Your task to perform on an android device: Is it going to rain today? Image 0: 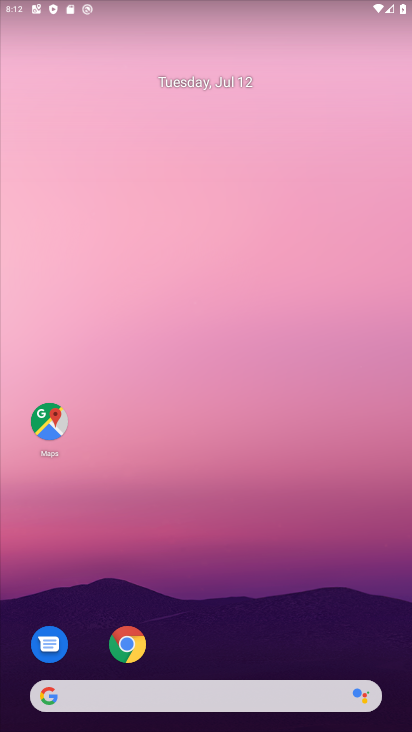
Step 0: drag from (191, 553) to (266, 23)
Your task to perform on an android device: Is it going to rain today? Image 1: 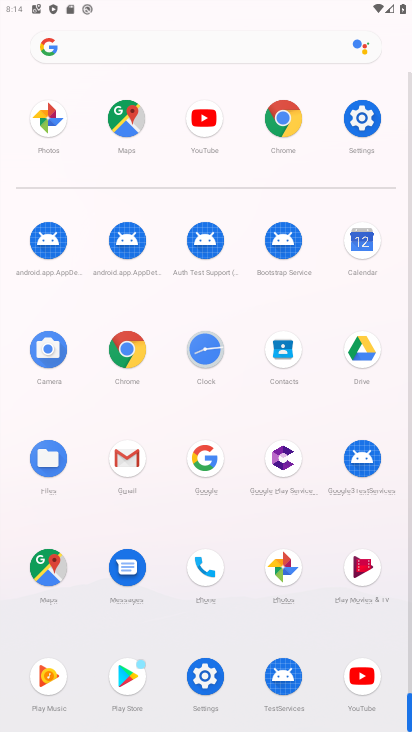
Step 1: click (280, 113)
Your task to perform on an android device: Is it going to rain today? Image 2: 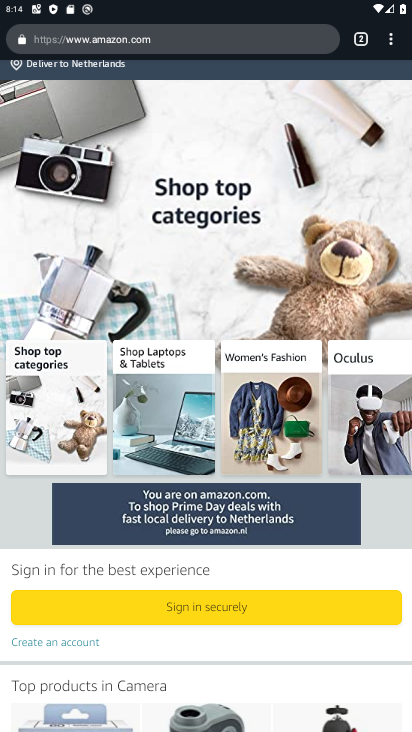
Step 2: click (132, 33)
Your task to perform on an android device: Is it going to rain today? Image 3: 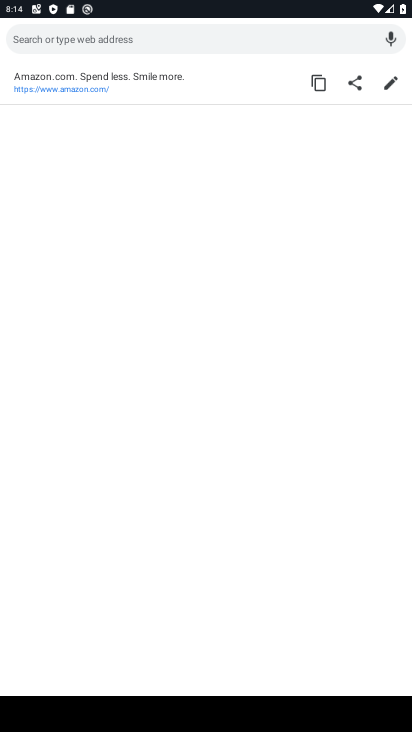
Step 3: type "Is it going to rain today?"
Your task to perform on an android device: Is it going to rain today? Image 4: 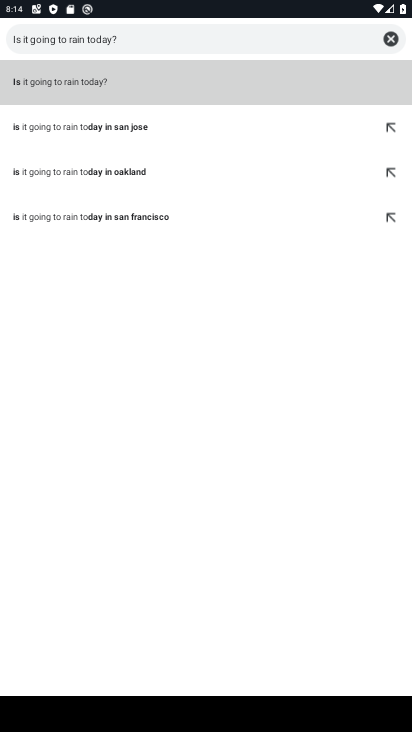
Step 4: click (43, 87)
Your task to perform on an android device: Is it going to rain today? Image 5: 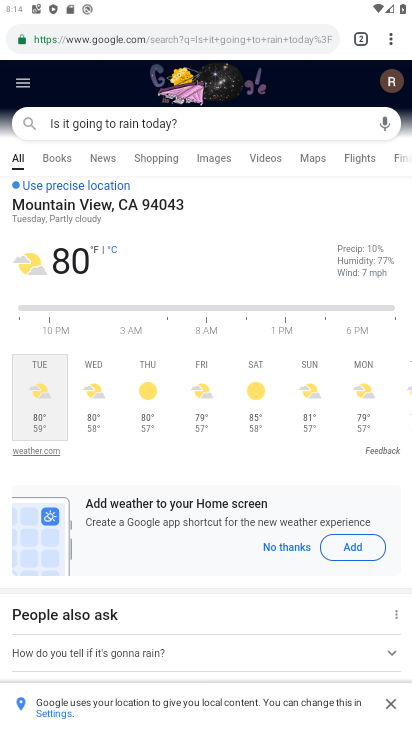
Step 5: task complete